Your task to perform on an android device: toggle sleep mode Image 0: 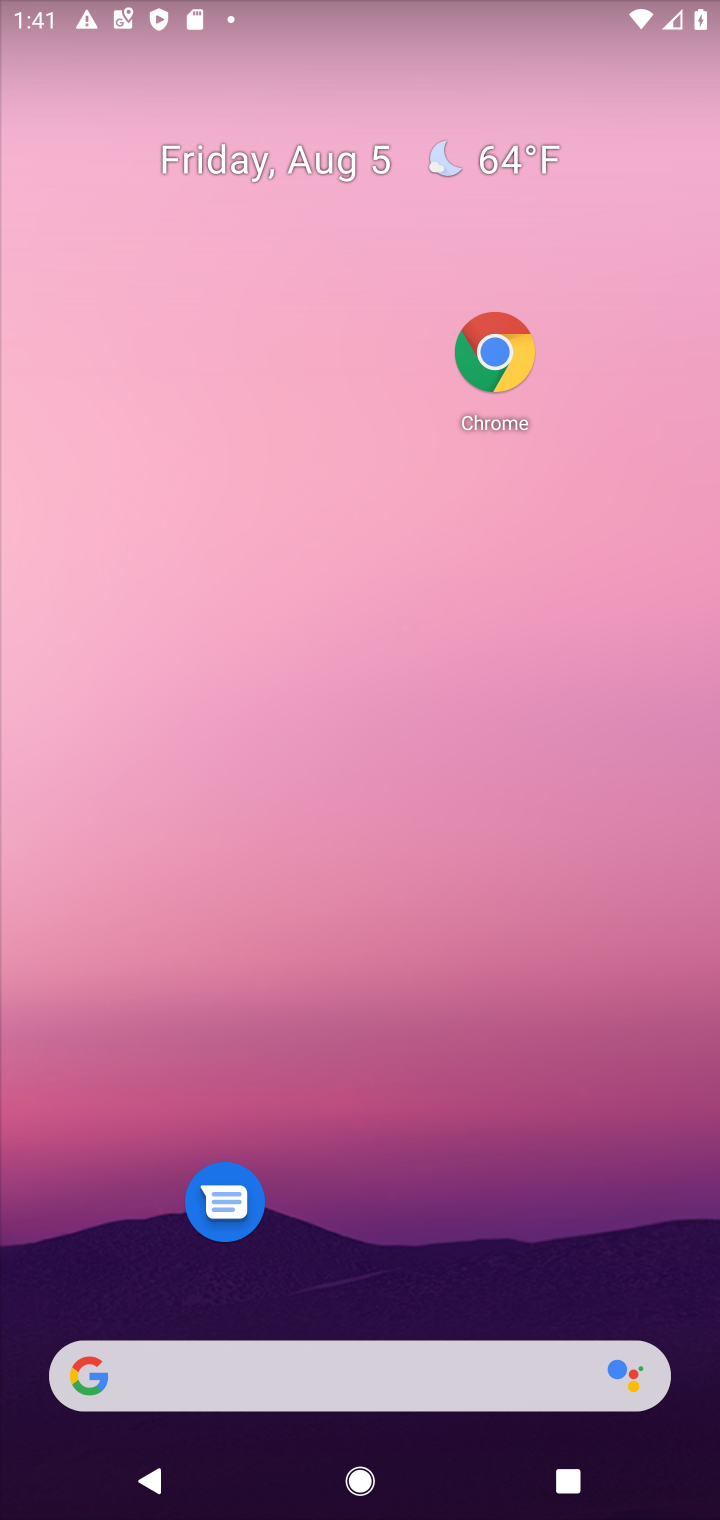
Step 0: drag from (503, 847) to (472, 58)
Your task to perform on an android device: toggle sleep mode Image 1: 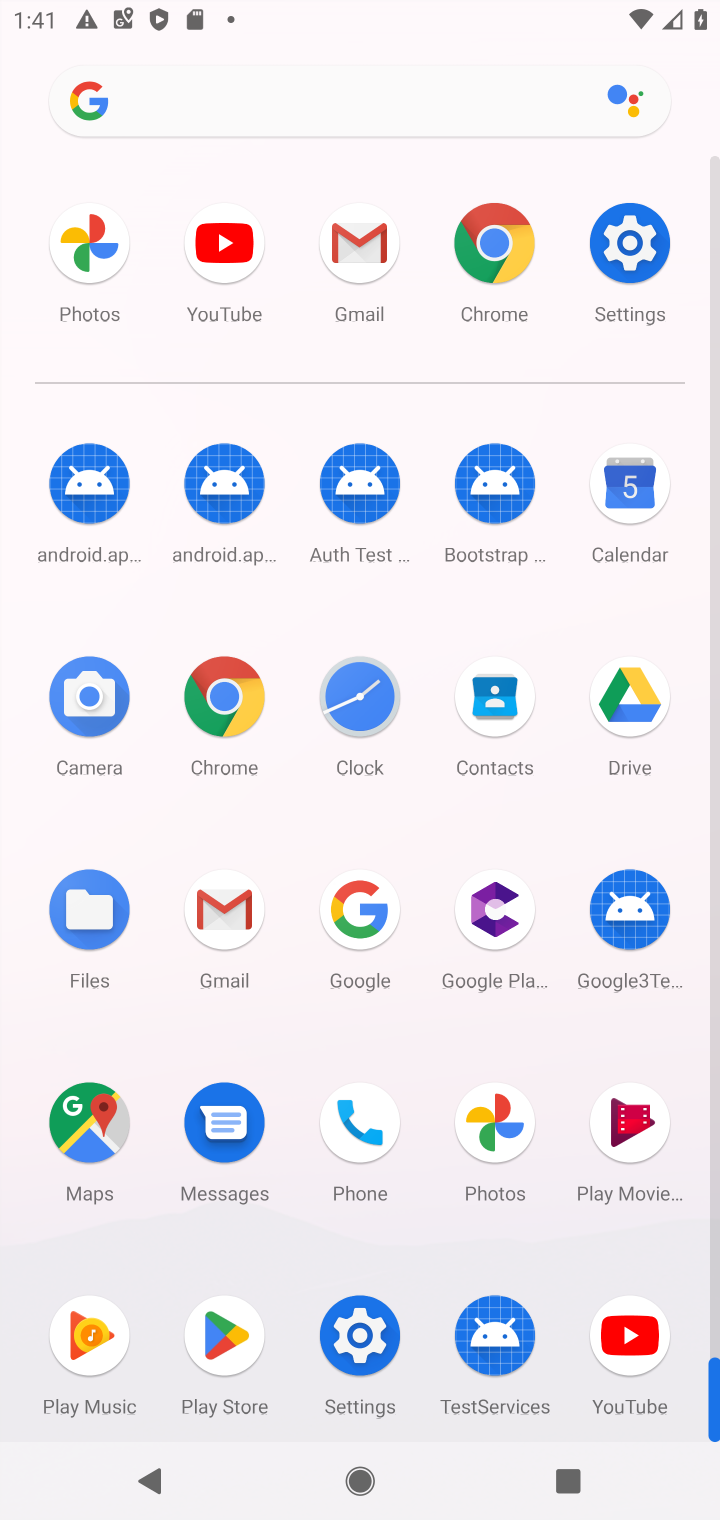
Step 1: click (671, 240)
Your task to perform on an android device: toggle sleep mode Image 2: 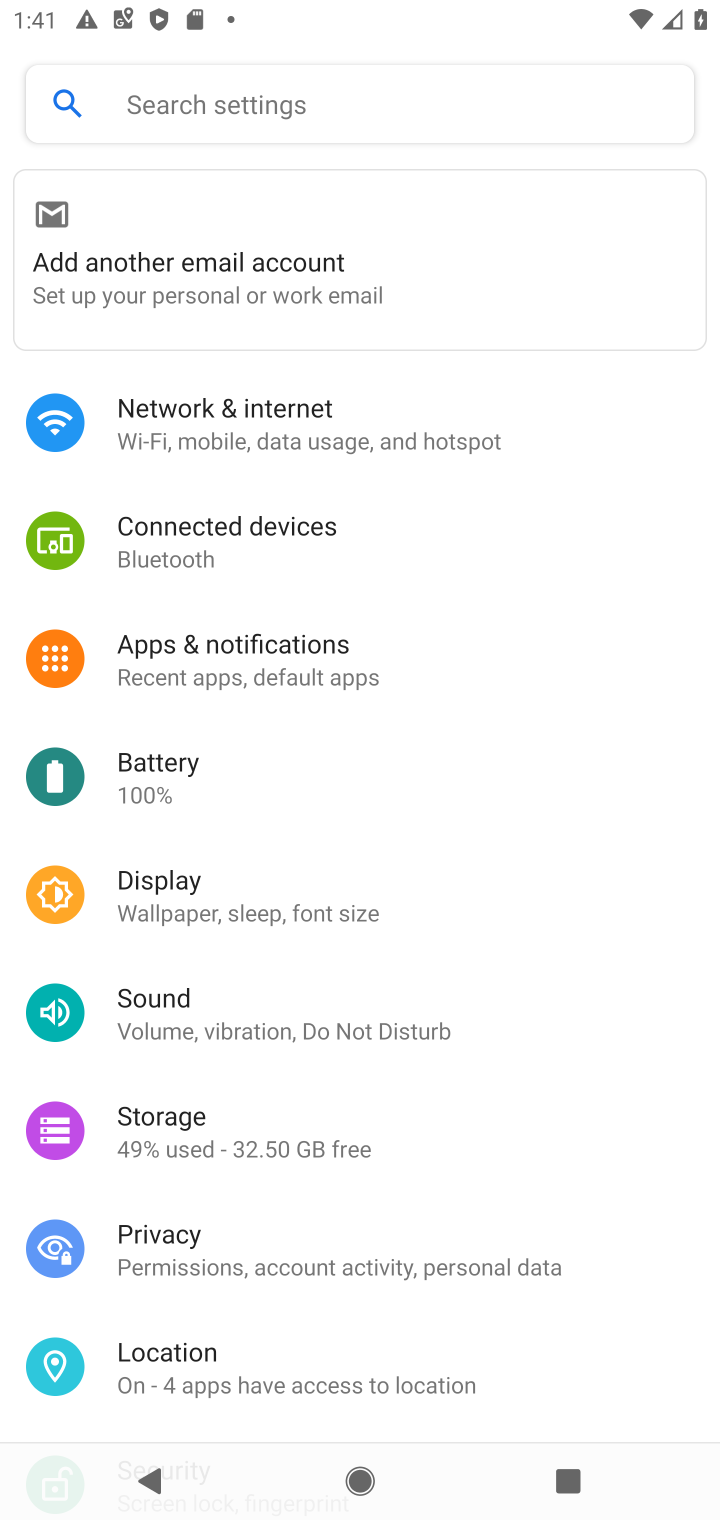
Step 2: click (167, 894)
Your task to perform on an android device: toggle sleep mode Image 3: 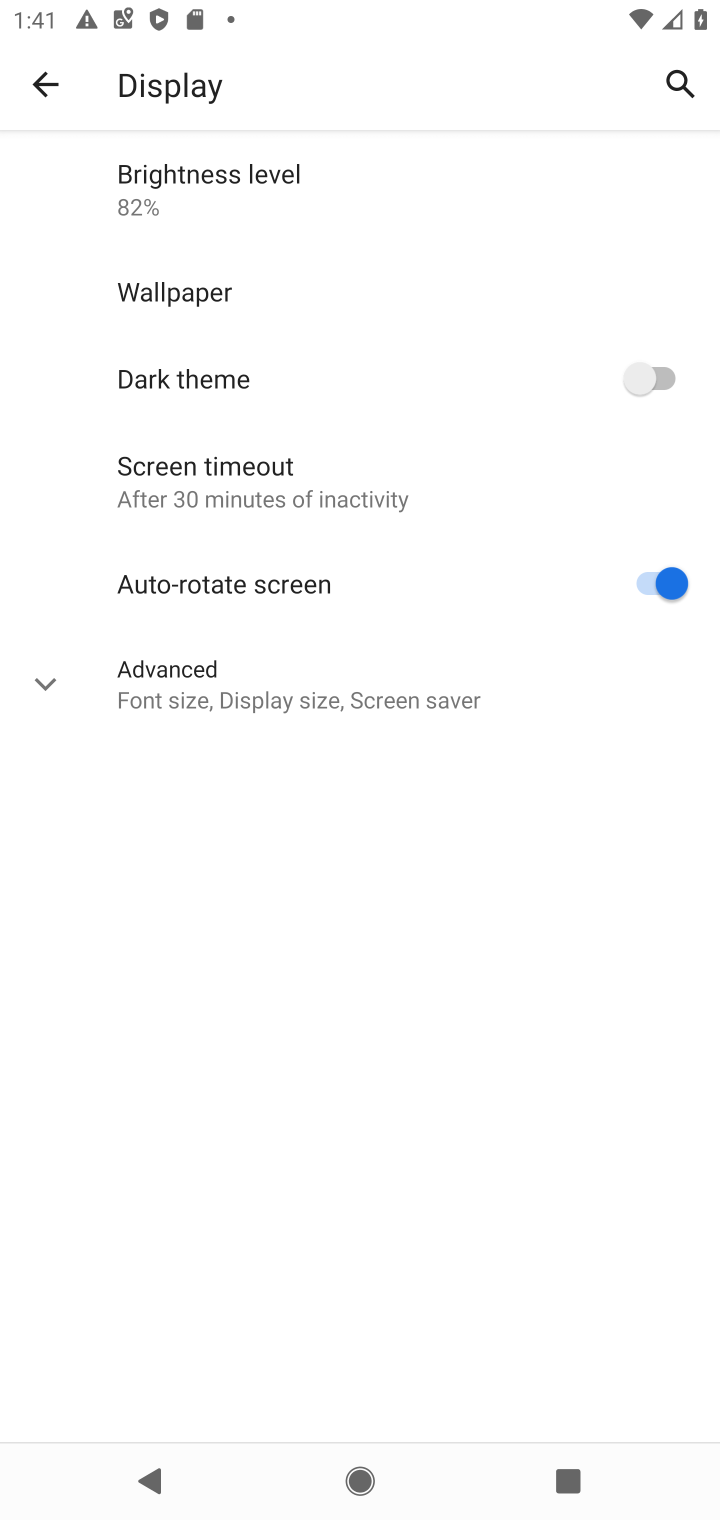
Step 3: click (301, 498)
Your task to perform on an android device: toggle sleep mode Image 4: 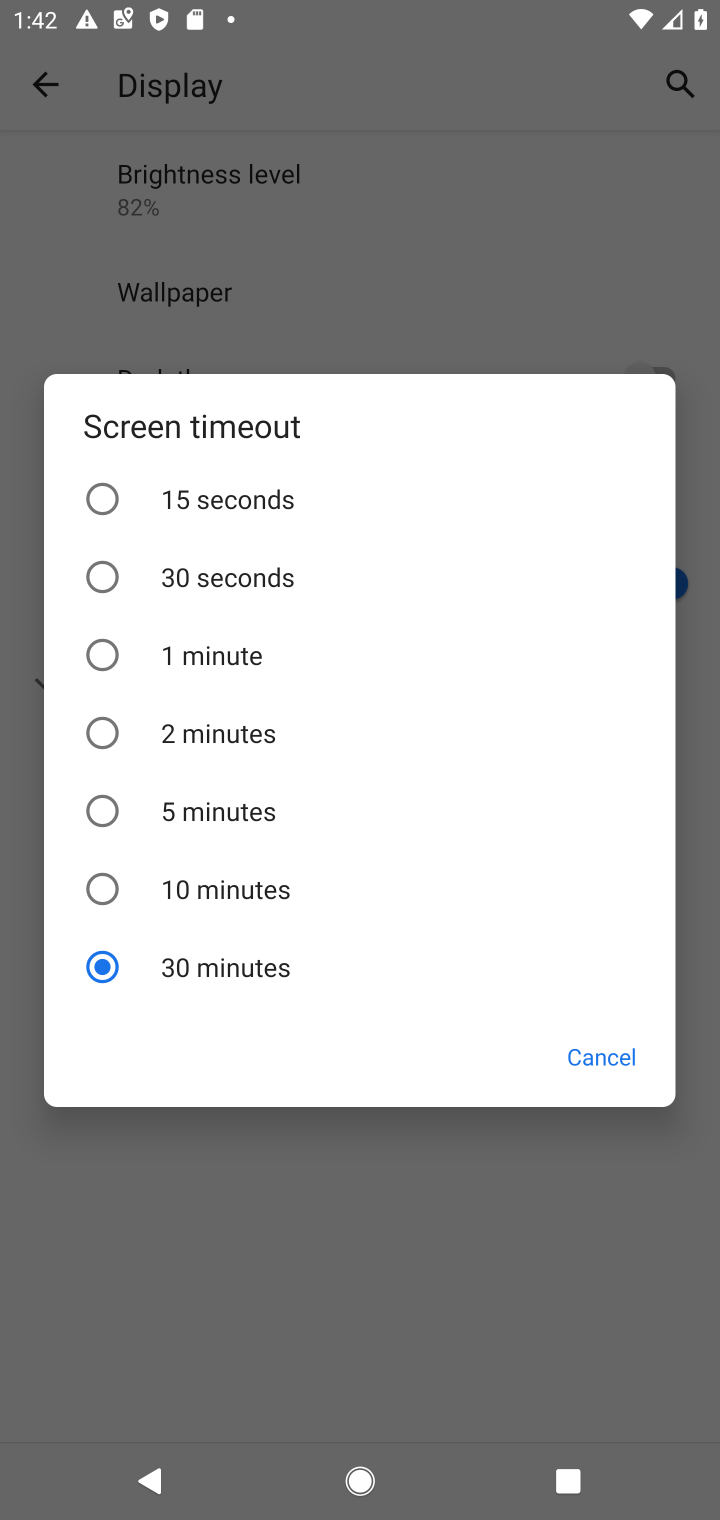
Step 4: click (182, 893)
Your task to perform on an android device: toggle sleep mode Image 5: 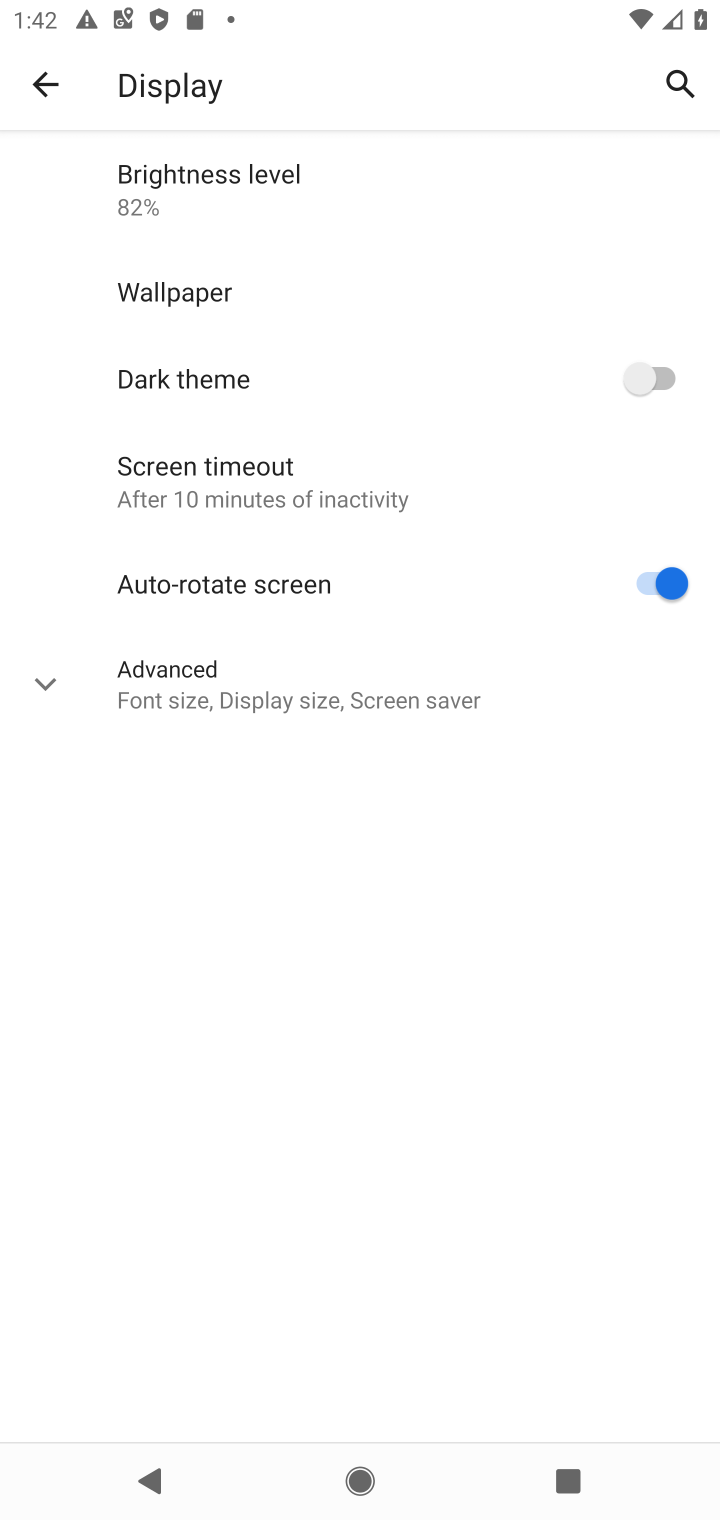
Step 5: task complete